Your task to perform on an android device: turn on notifications settings in the gmail app Image 0: 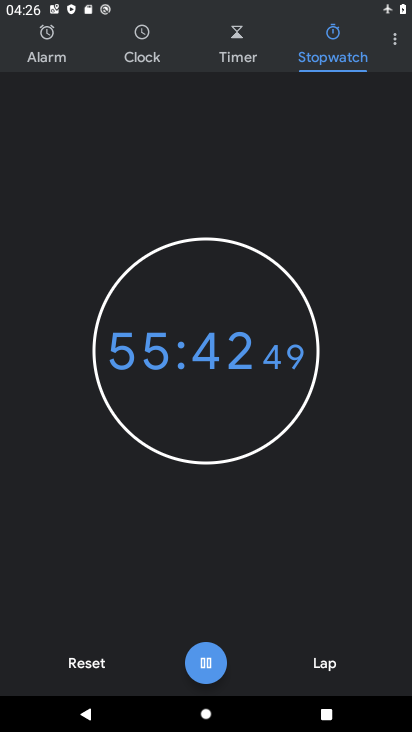
Step 0: press home button
Your task to perform on an android device: turn on notifications settings in the gmail app Image 1: 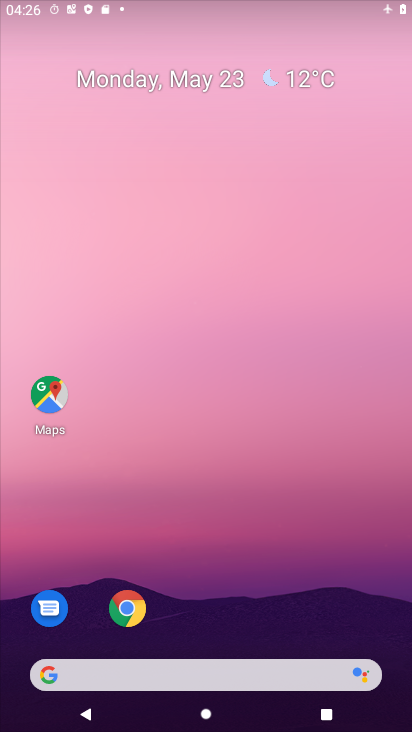
Step 1: drag from (320, 541) to (164, 18)
Your task to perform on an android device: turn on notifications settings in the gmail app Image 2: 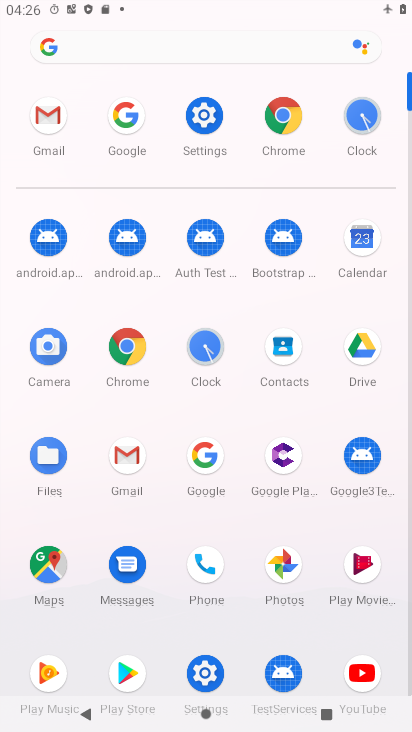
Step 2: click (133, 449)
Your task to perform on an android device: turn on notifications settings in the gmail app Image 3: 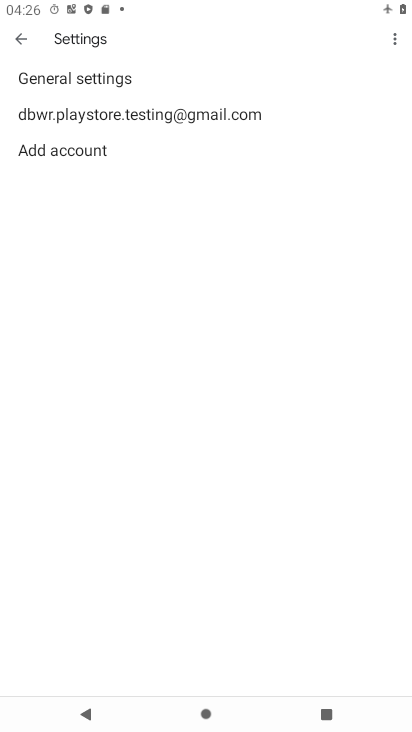
Step 3: click (133, 107)
Your task to perform on an android device: turn on notifications settings in the gmail app Image 4: 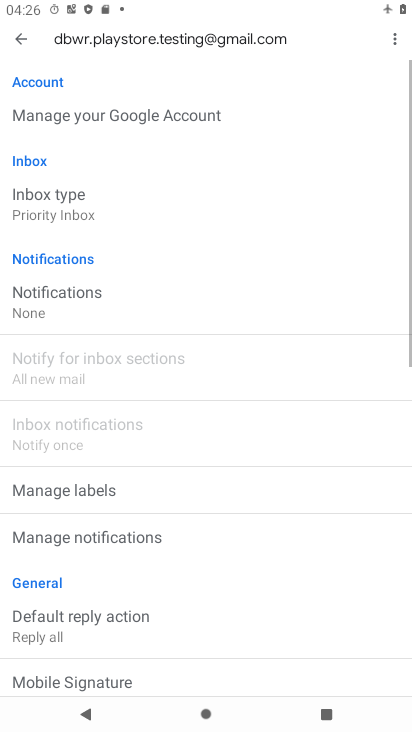
Step 4: click (82, 295)
Your task to perform on an android device: turn on notifications settings in the gmail app Image 5: 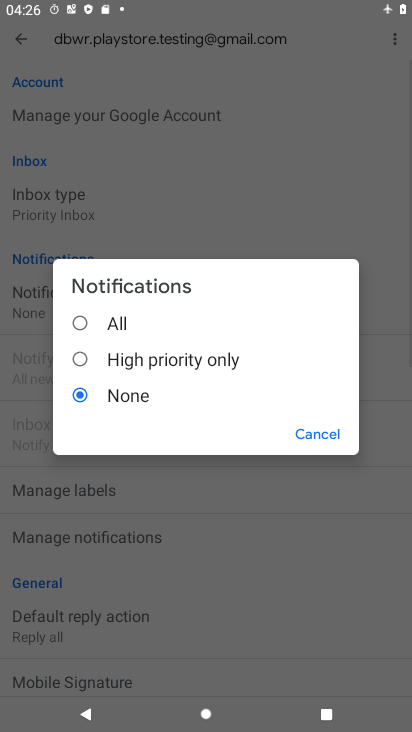
Step 5: click (96, 326)
Your task to perform on an android device: turn on notifications settings in the gmail app Image 6: 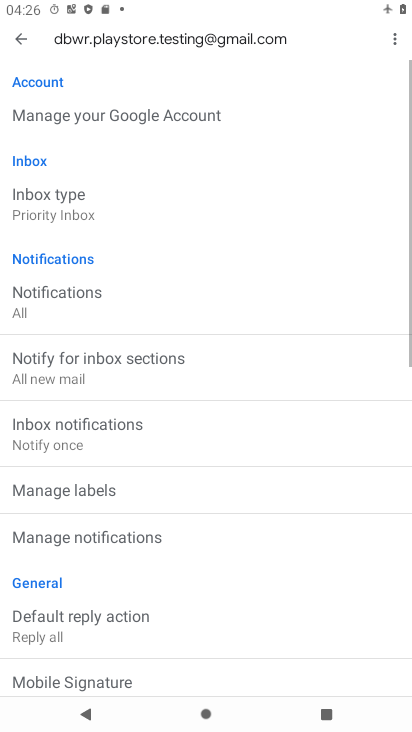
Step 6: task complete